Your task to perform on an android device: Add "usb-a" to the cart on costco Image 0: 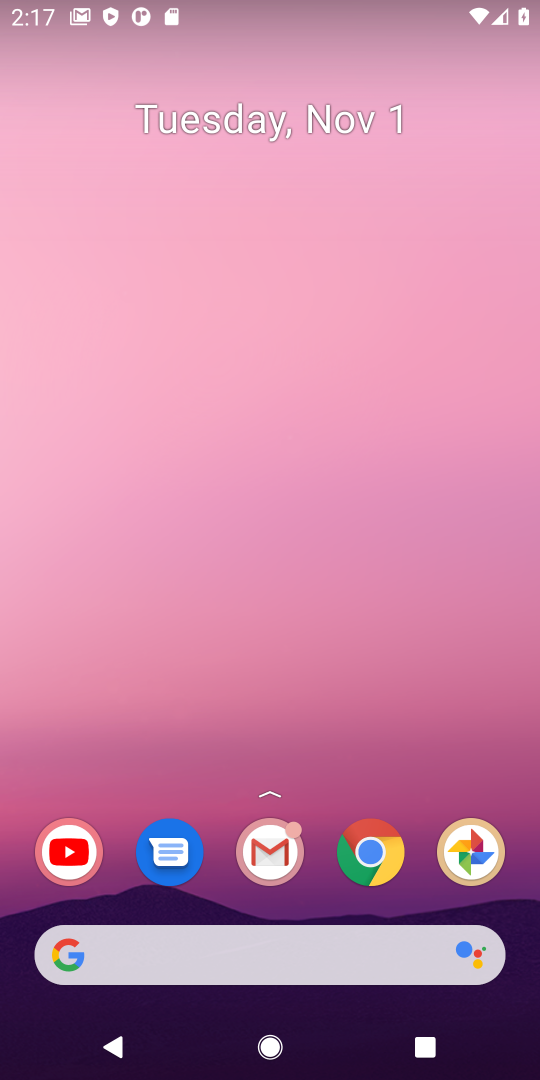
Step 0: click (228, 971)
Your task to perform on an android device: Add "usb-a" to the cart on costco Image 1: 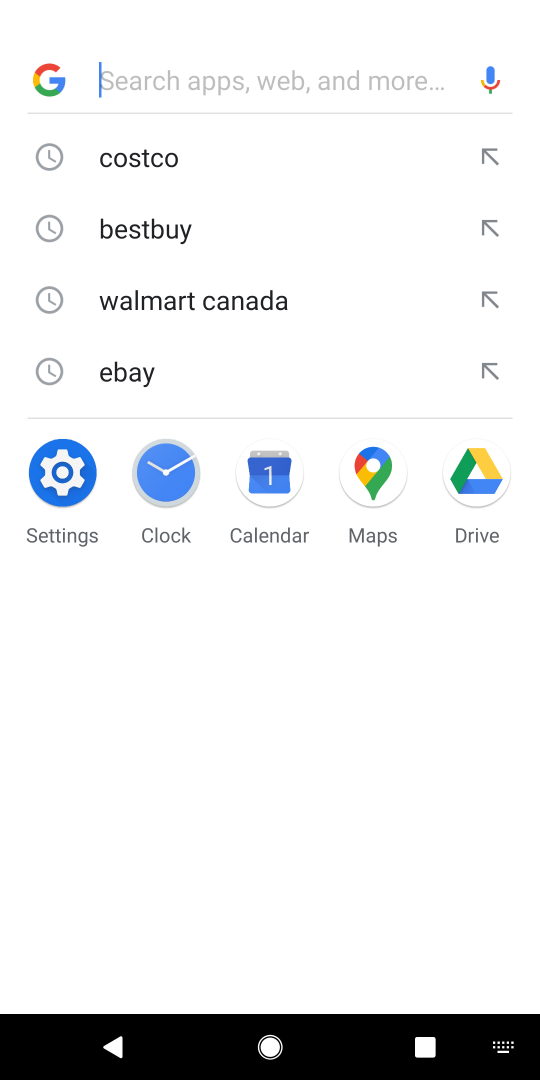
Step 1: click (147, 180)
Your task to perform on an android device: Add "usb-a" to the cart on costco Image 2: 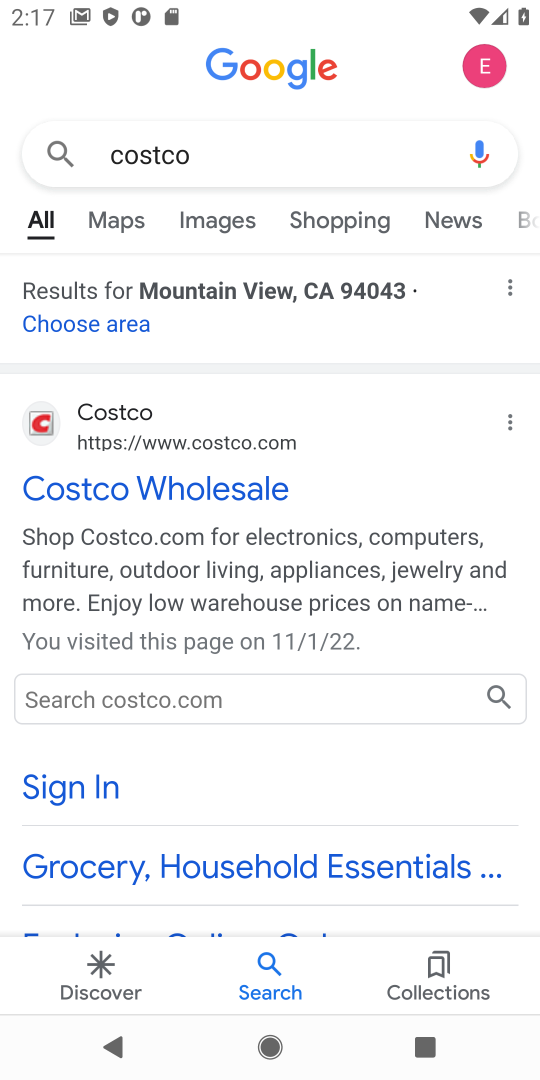
Step 2: click (223, 499)
Your task to perform on an android device: Add "usb-a" to the cart on costco Image 3: 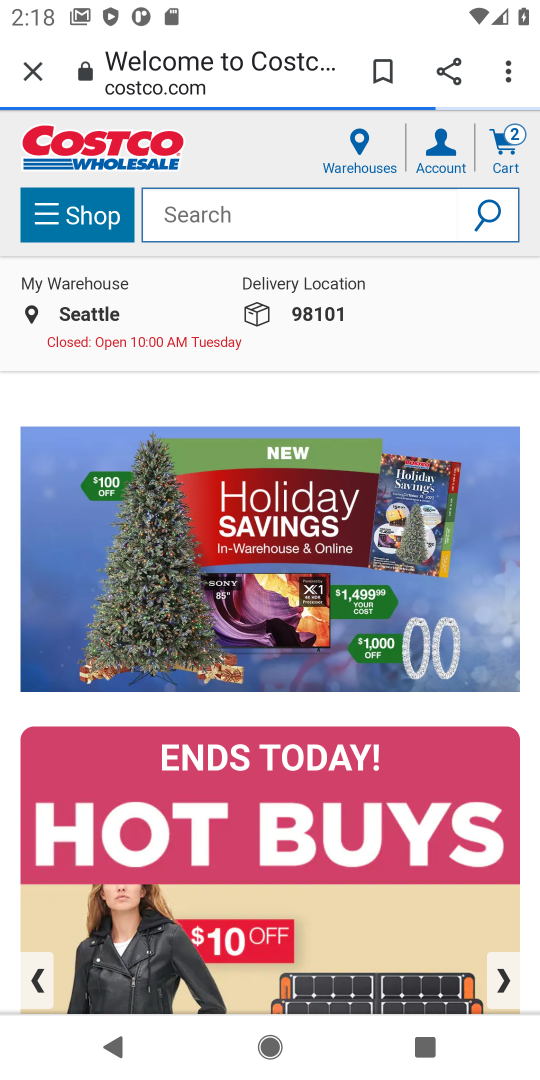
Step 3: click (292, 219)
Your task to perform on an android device: Add "usb-a" to the cart on costco Image 4: 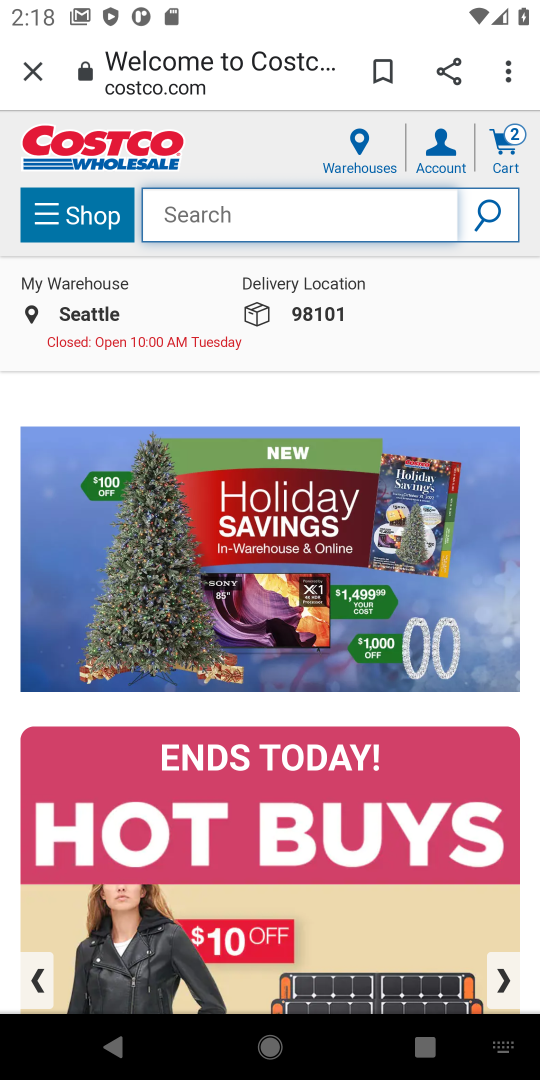
Step 4: click (292, 219)
Your task to perform on an android device: Add "usb-a" to the cart on costco Image 5: 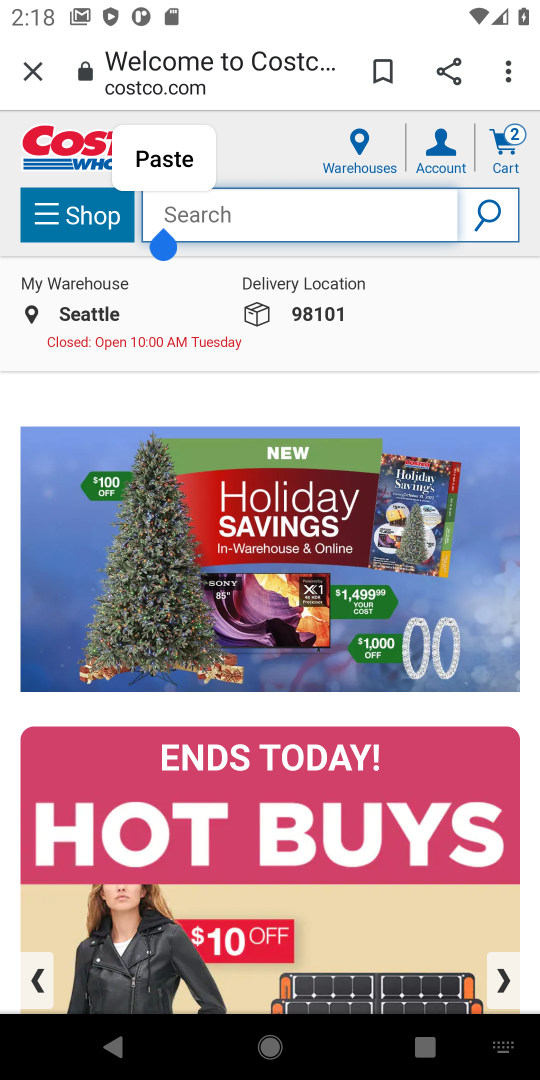
Step 5: type "usb-a"
Your task to perform on an android device: Add "usb-a" to the cart on costco Image 6: 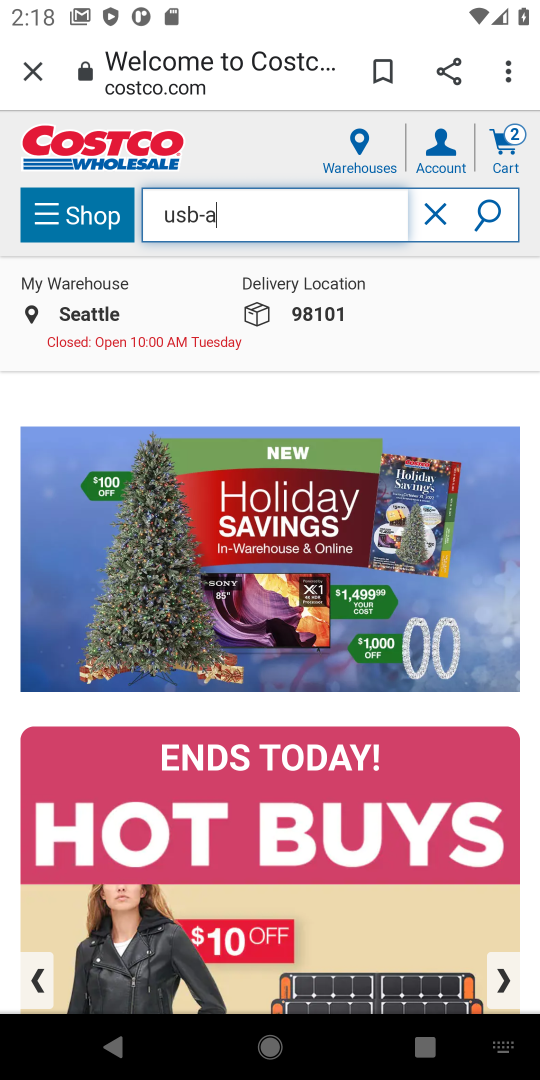
Step 6: type ""
Your task to perform on an android device: Add "usb-a" to the cart on costco Image 7: 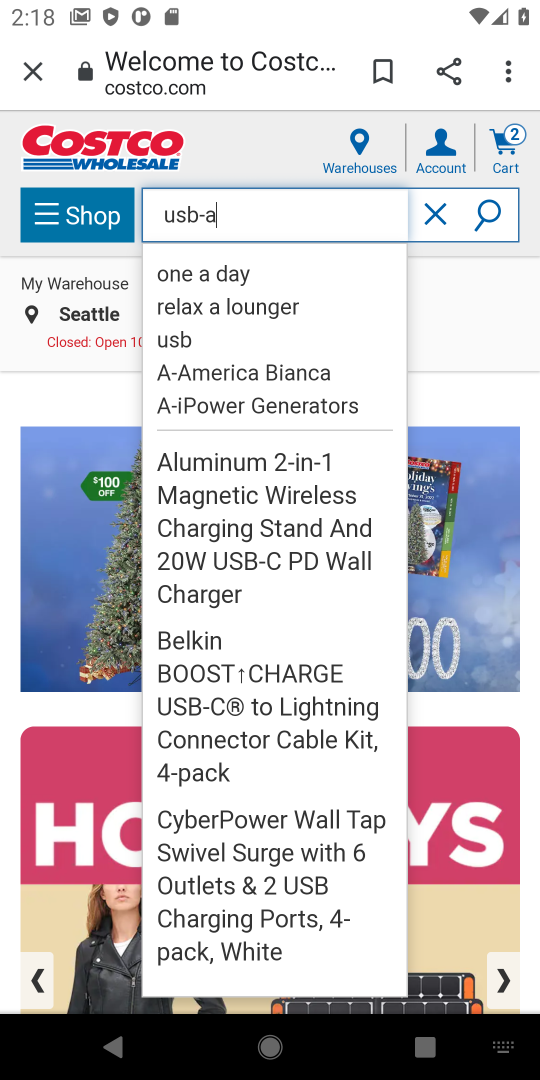
Step 7: press enter
Your task to perform on an android device: Add "usb-a" to the cart on costco Image 8: 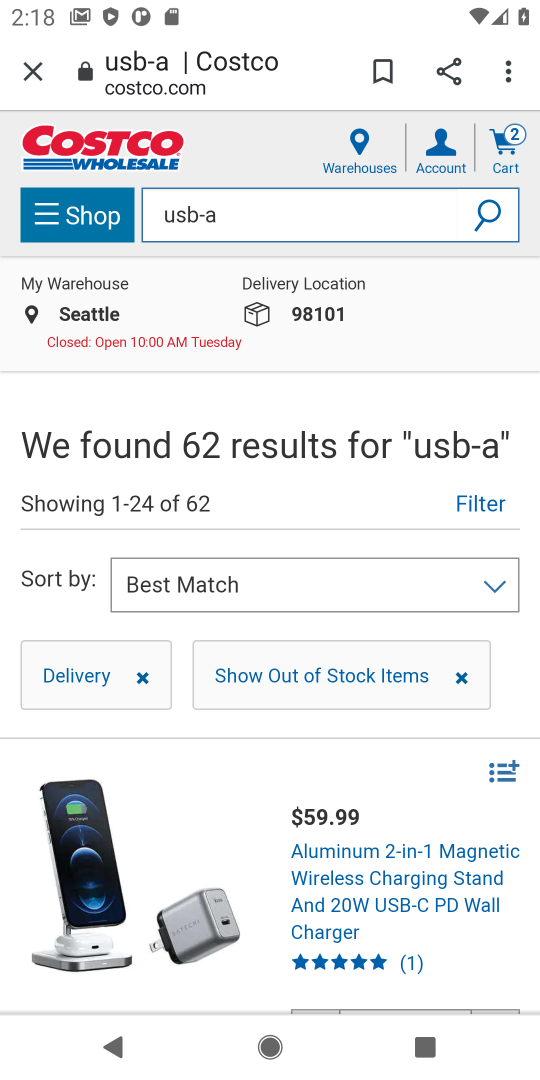
Step 8: click (499, 217)
Your task to perform on an android device: Add "usb-a" to the cart on costco Image 9: 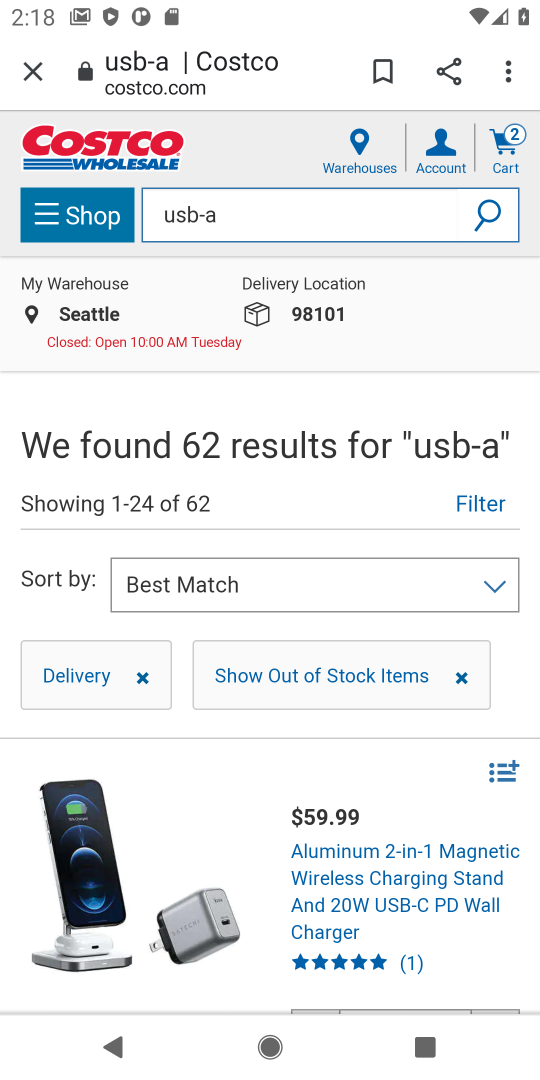
Step 9: click (495, 214)
Your task to perform on an android device: Add "usb-a" to the cart on costco Image 10: 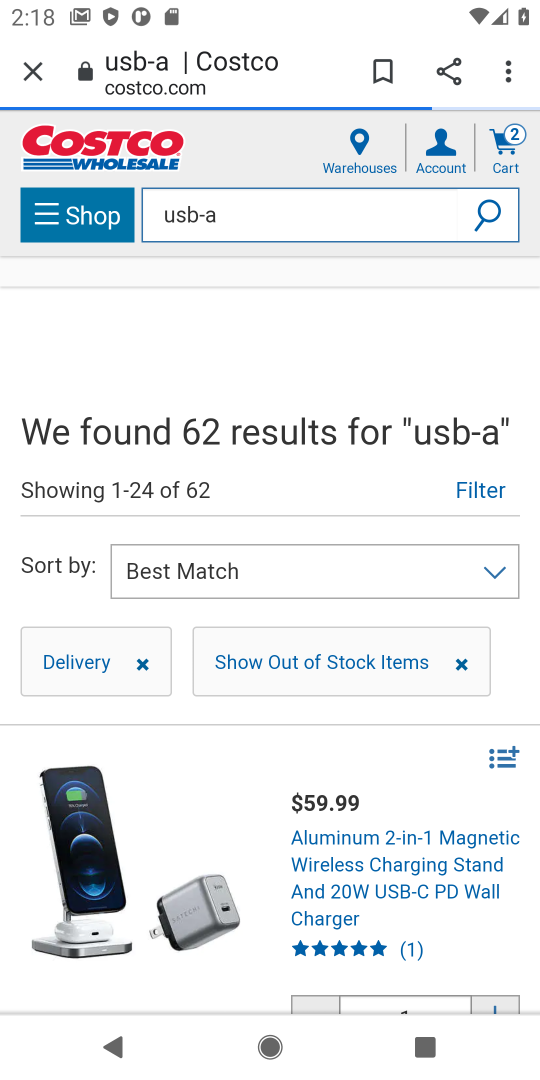
Step 10: drag from (440, 709) to (454, 348)
Your task to perform on an android device: Add "usb-a" to the cart on costco Image 11: 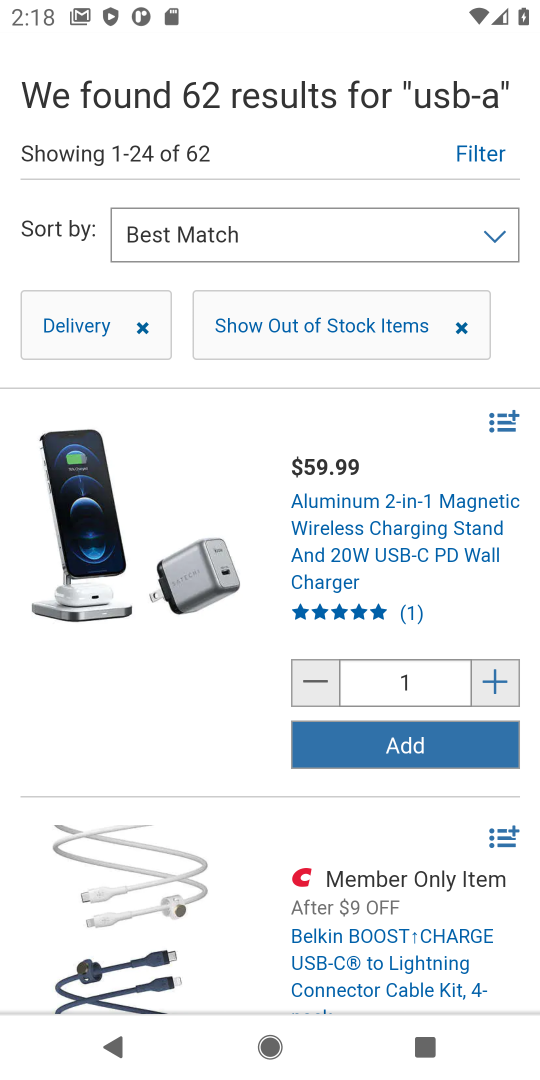
Step 11: click (501, 682)
Your task to perform on an android device: Add "usb-a" to the cart on costco Image 12: 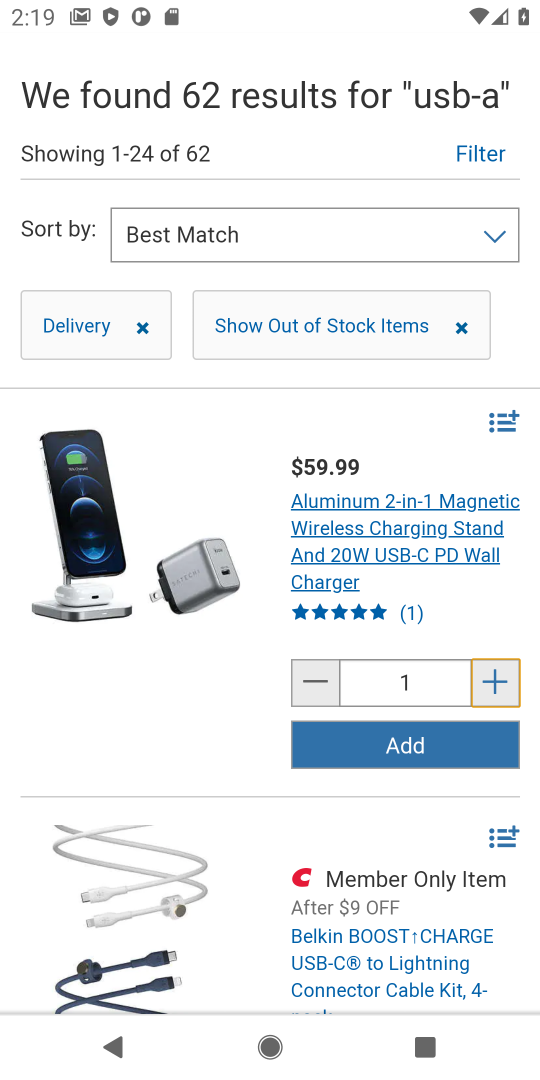
Step 12: click (519, 715)
Your task to perform on an android device: Add "usb-a" to the cart on costco Image 13: 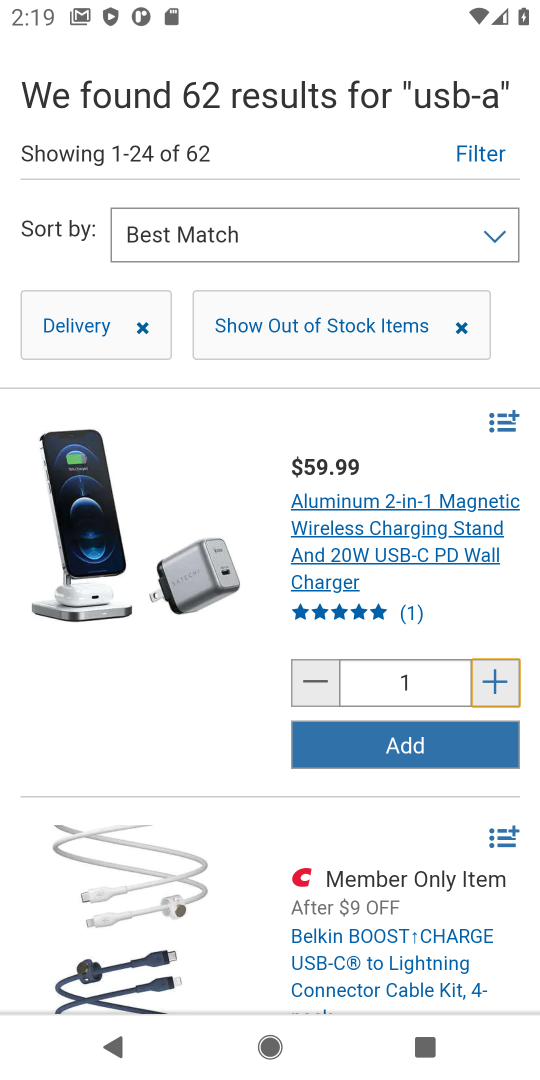
Step 13: click (502, 689)
Your task to perform on an android device: Add "usb-a" to the cart on costco Image 14: 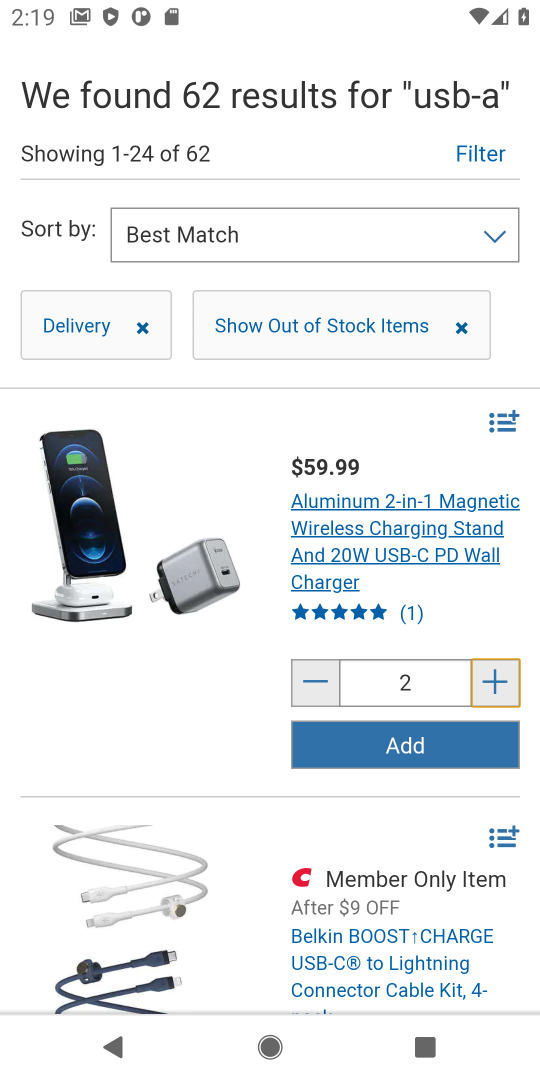
Step 14: click (502, 689)
Your task to perform on an android device: Add "usb-a" to the cart on costco Image 15: 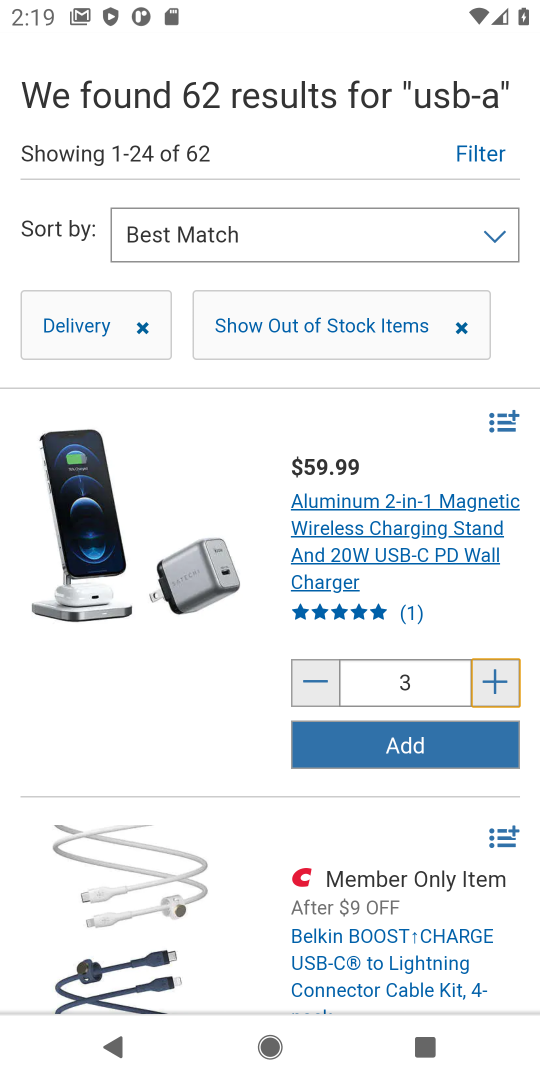
Step 15: task complete